Your task to perform on an android device: find which apps use the phone's location Image 0: 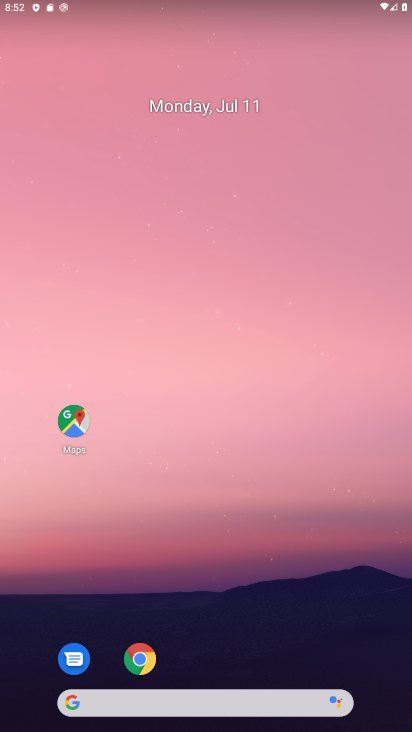
Step 0: drag from (220, 723) to (209, 118)
Your task to perform on an android device: find which apps use the phone's location Image 1: 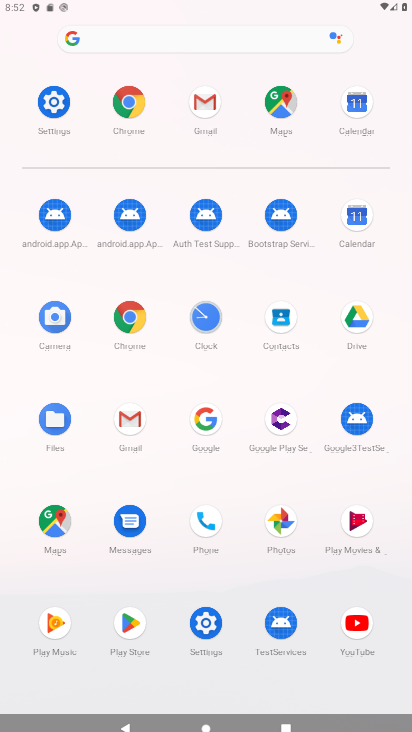
Step 1: click (51, 107)
Your task to perform on an android device: find which apps use the phone's location Image 2: 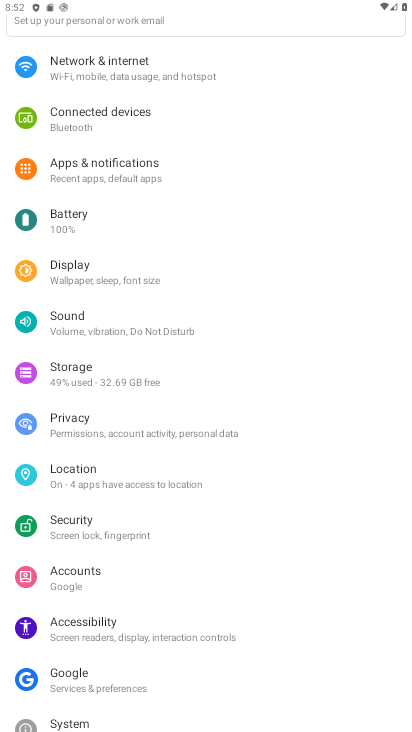
Step 2: click (80, 471)
Your task to perform on an android device: find which apps use the phone's location Image 3: 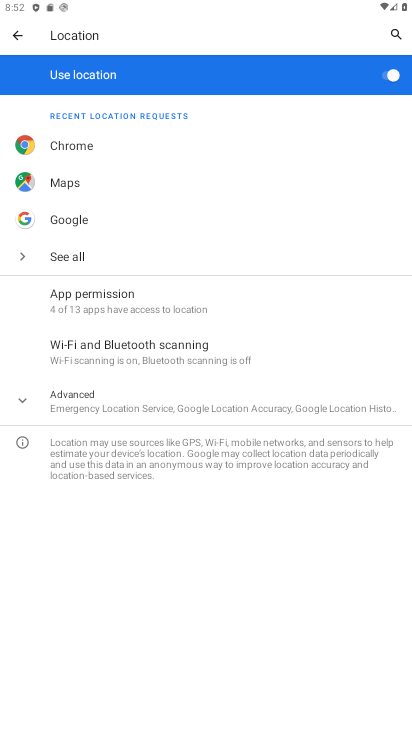
Step 3: click (86, 300)
Your task to perform on an android device: find which apps use the phone's location Image 4: 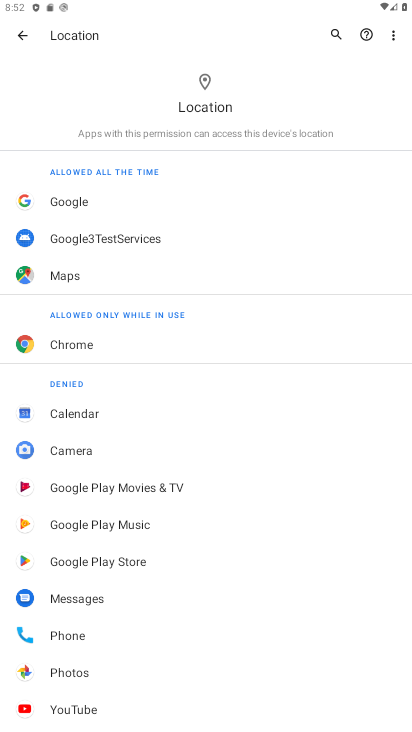
Step 4: task complete